Your task to perform on an android device: Is it going to rain this weekend? Image 0: 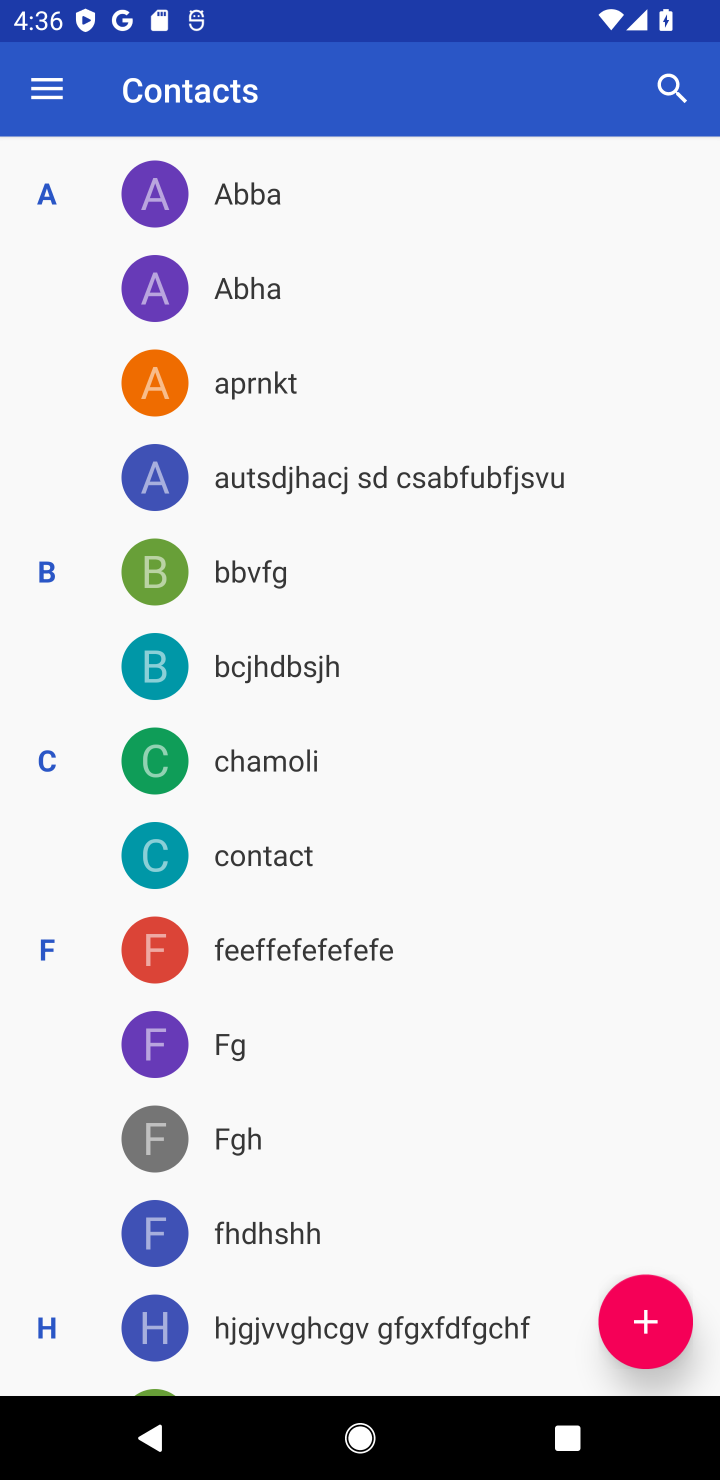
Step 0: press home button
Your task to perform on an android device: Is it going to rain this weekend? Image 1: 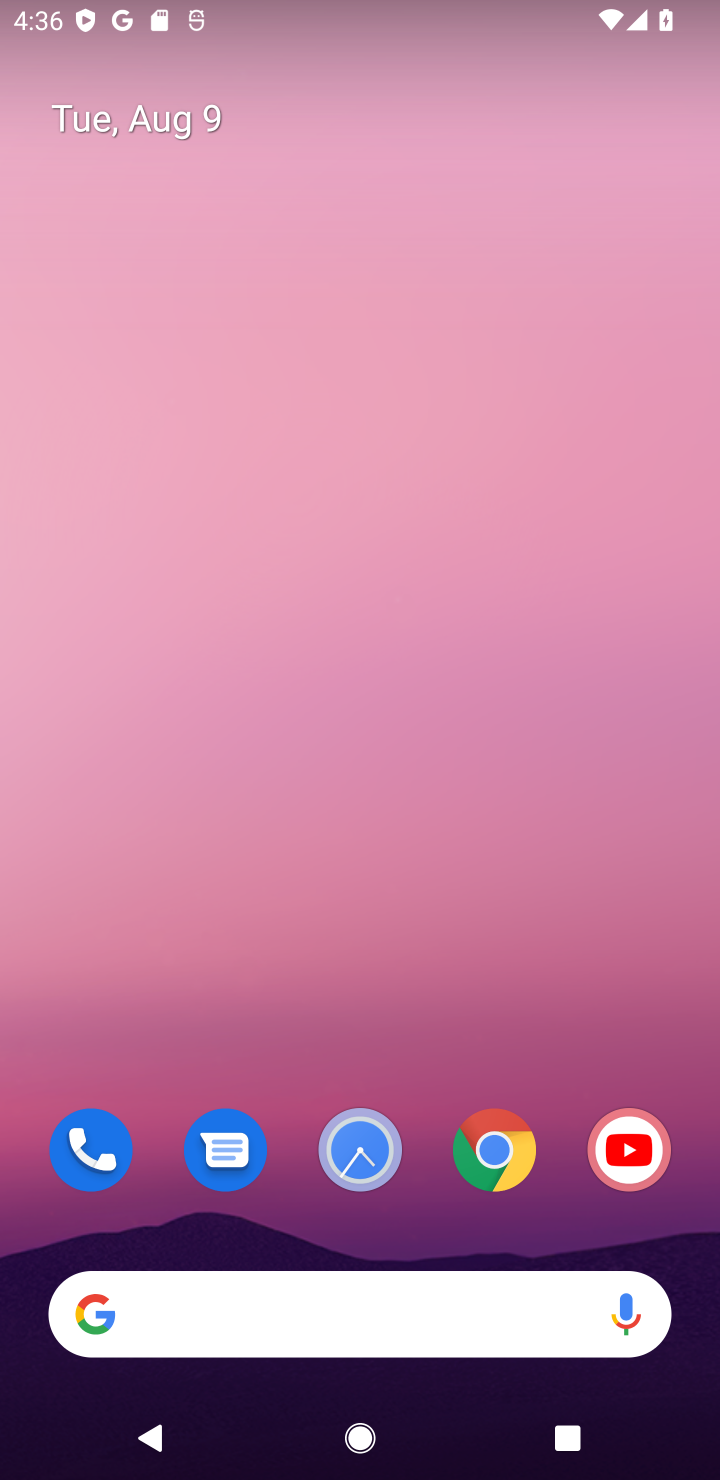
Step 1: click (336, 1312)
Your task to perform on an android device: Is it going to rain this weekend? Image 2: 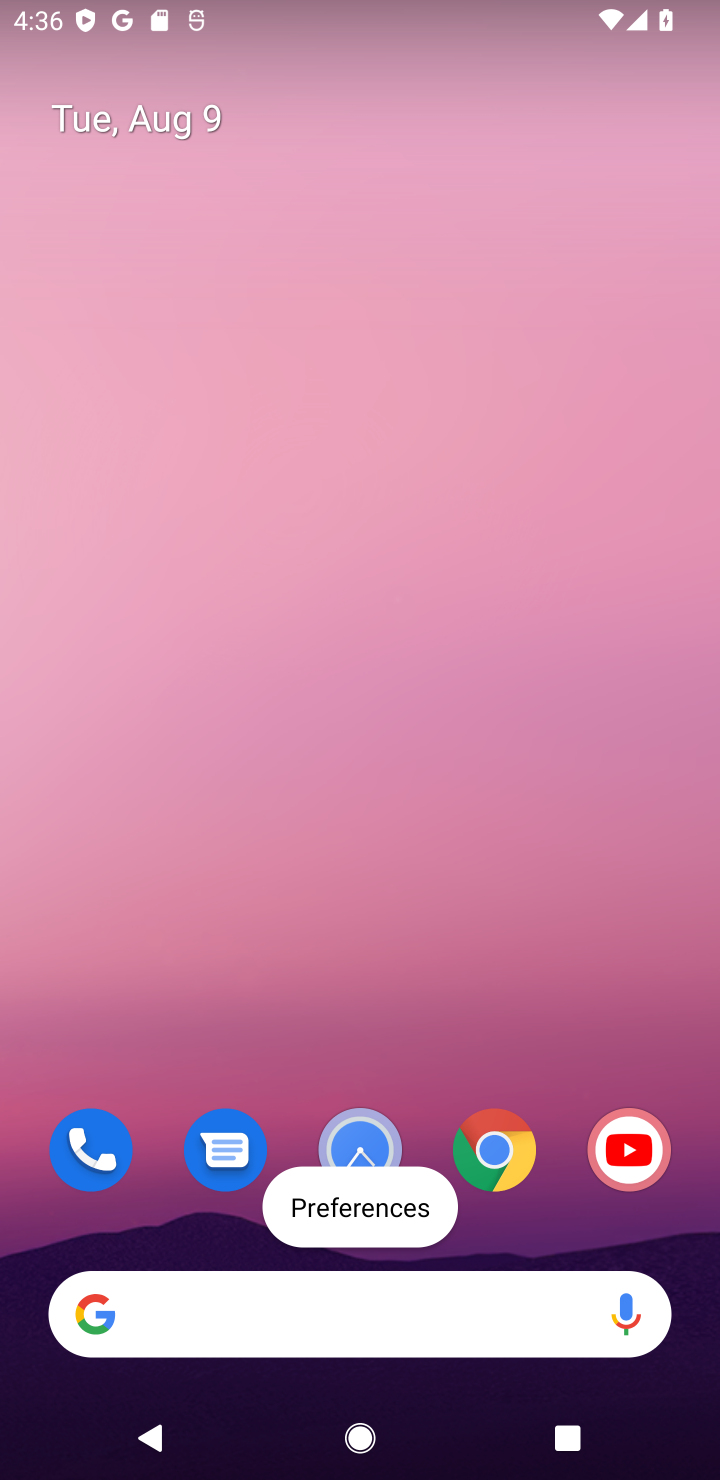
Step 2: click (367, 1268)
Your task to perform on an android device: Is it going to rain this weekend? Image 3: 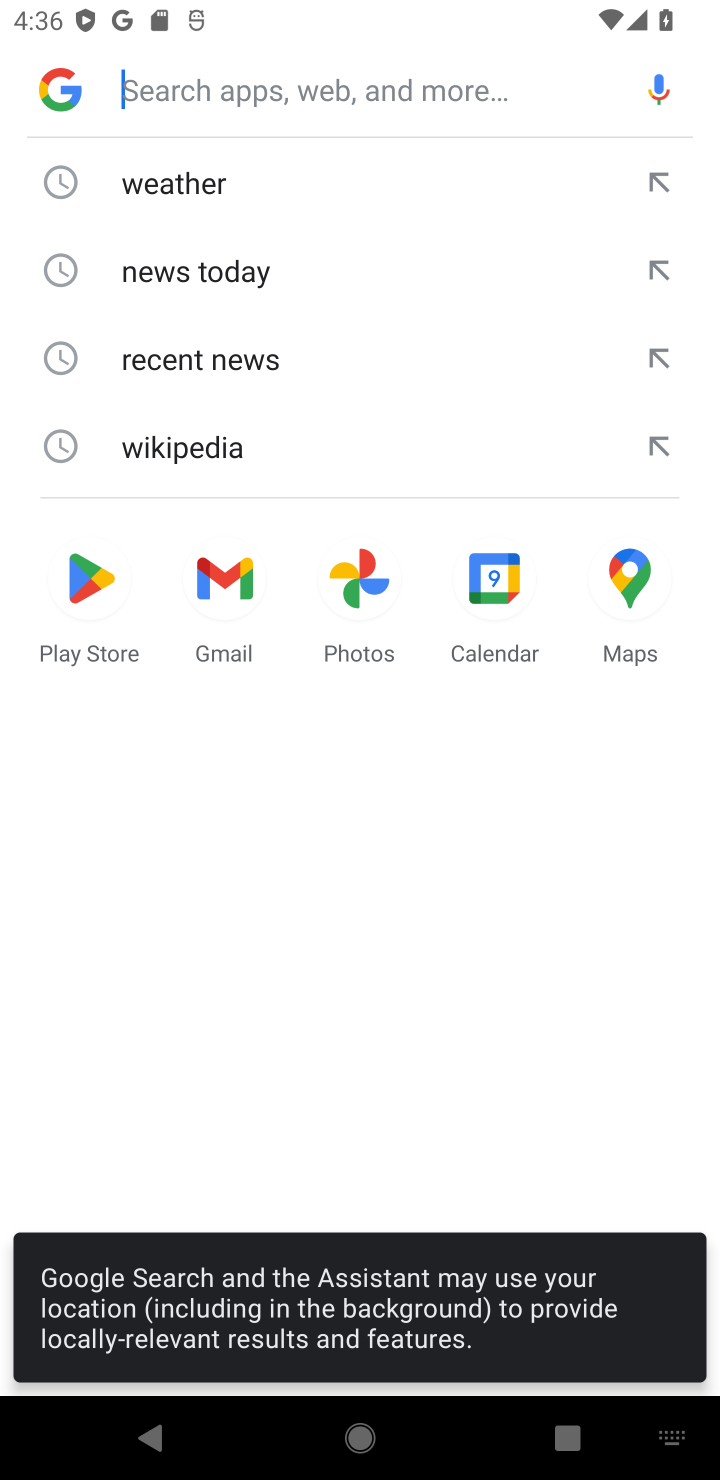
Step 3: click (136, 162)
Your task to perform on an android device: Is it going to rain this weekend? Image 4: 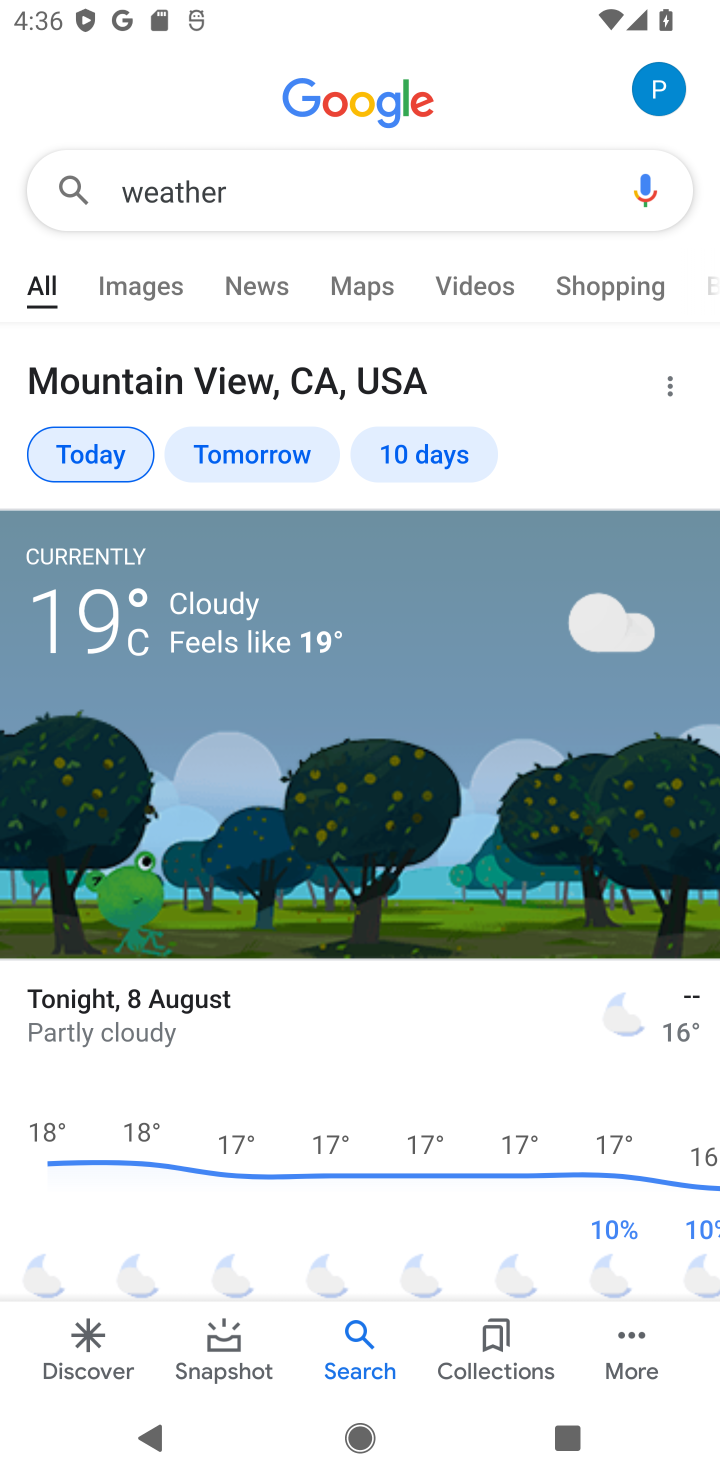
Step 4: click (427, 478)
Your task to perform on an android device: Is it going to rain this weekend? Image 5: 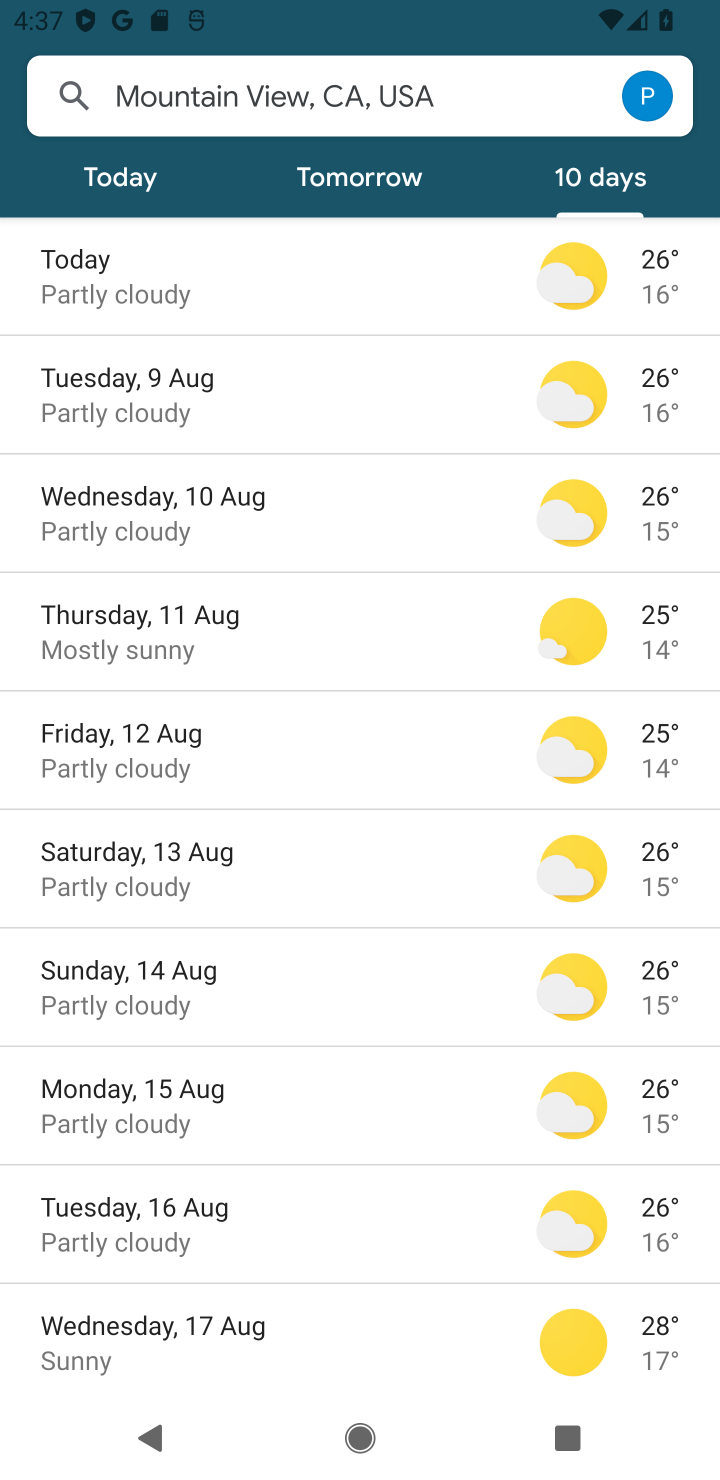
Step 5: task complete